Your task to perform on an android device: change notification settings in the gmail app Image 0: 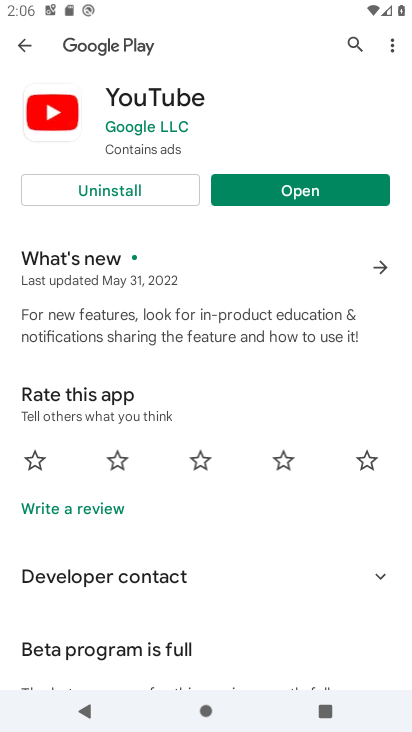
Step 0: press home button
Your task to perform on an android device: change notification settings in the gmail app Image 1: 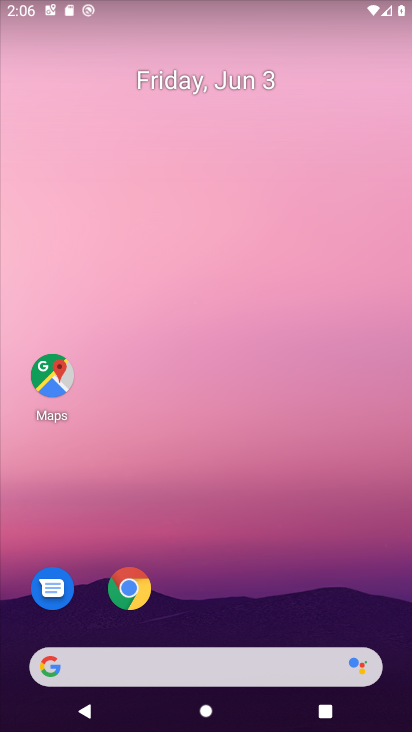
Step 1: drag from (164, 626) to (212, 214)
Your task to perform on an android device: change notification settings in the gmail app Image 2: 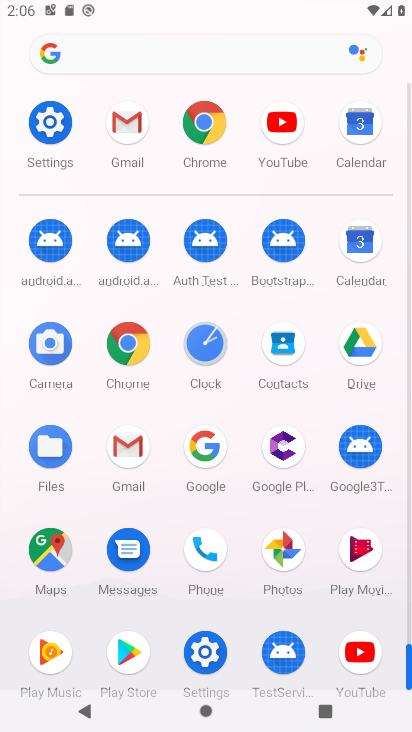
Step 2: click (127, 459)
Your task to perform on an android device: change notification settings in the gmail app Image 3: 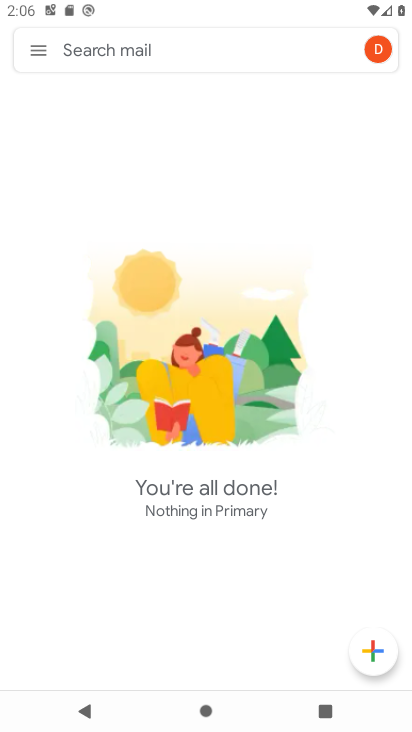
Step 3: click (45, 50)
Your task to perform on an android device: change notification settings in the gmail app Image 4: 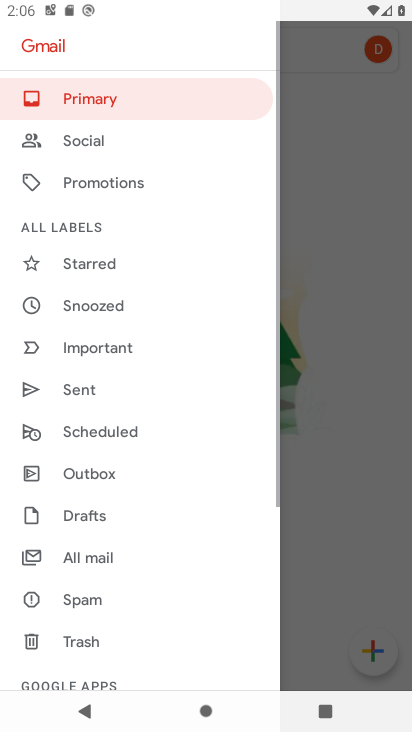
Step 4: drag from (97, 316) to (113, 61)
Your task to perform on an android device: change notification settings in the gmail app Image 5: 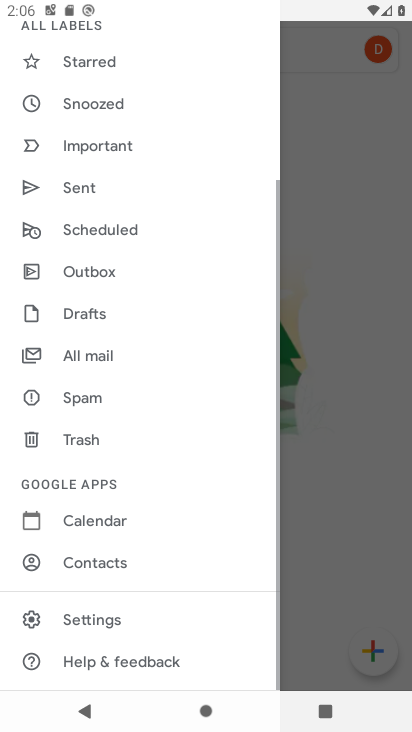
Step 5: click (81, 625)
Your task to perform on an android device: change notification settings in the gmail app Image 6: 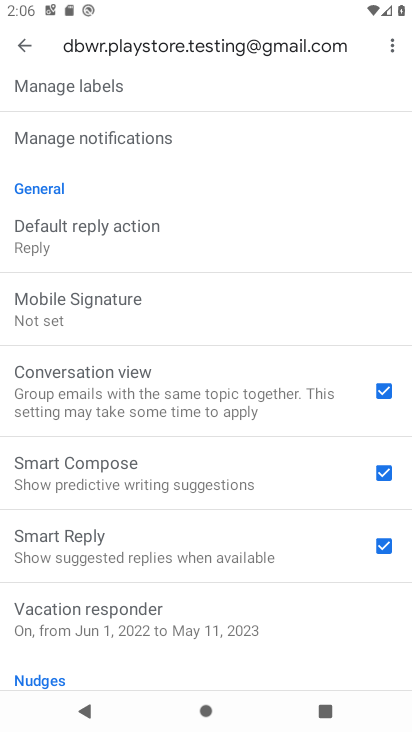
Step 6: click (27, 50)
Your task to perform on an android device: change notification settings in the gmail app Image 7: 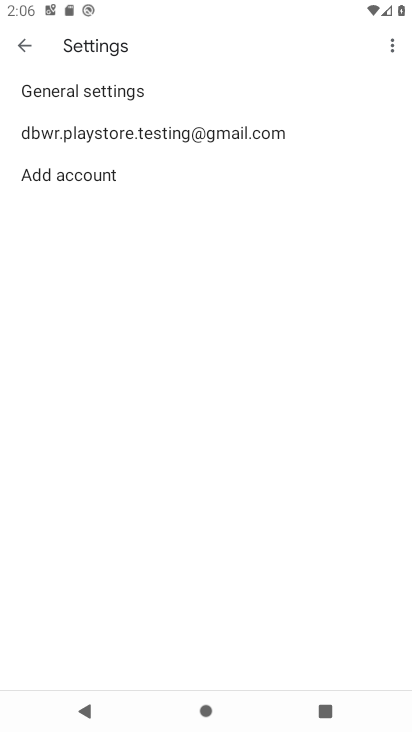
Step 7: click (79, 82)
Your task to perform on an android device: change notification settings in the gmail app Image 8: 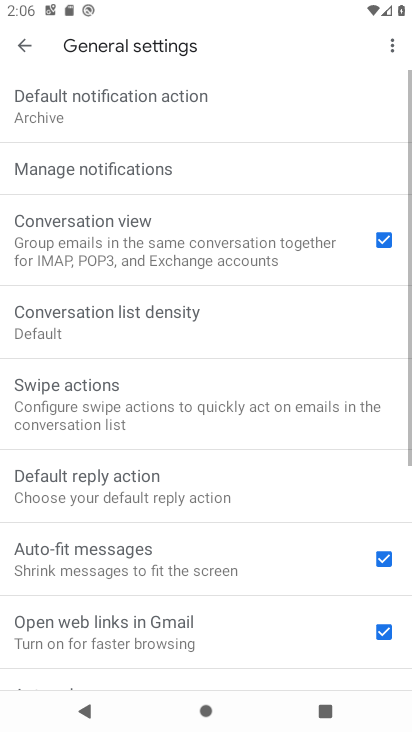
Step 8: click (114, 167)
Your task to perform on an android device: change notification settings in the gmail app Image 9: 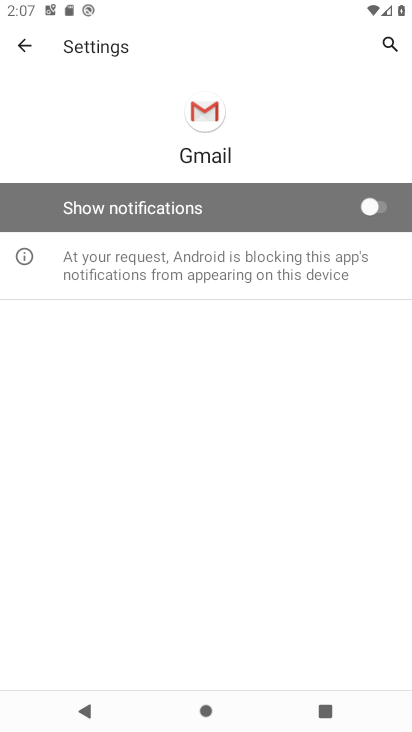
Step 9: click (283, 207)
Your task to perform on an android device: change notification settings in the gmail app Image 10: 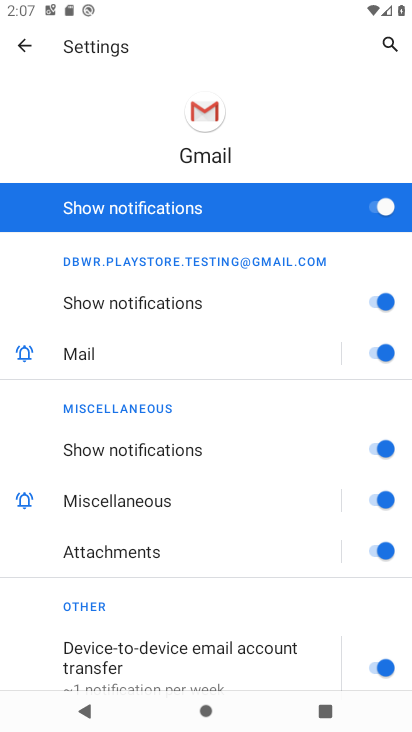
Step 10: task complete